Your task to perform on an android device: Check the news Image 0: 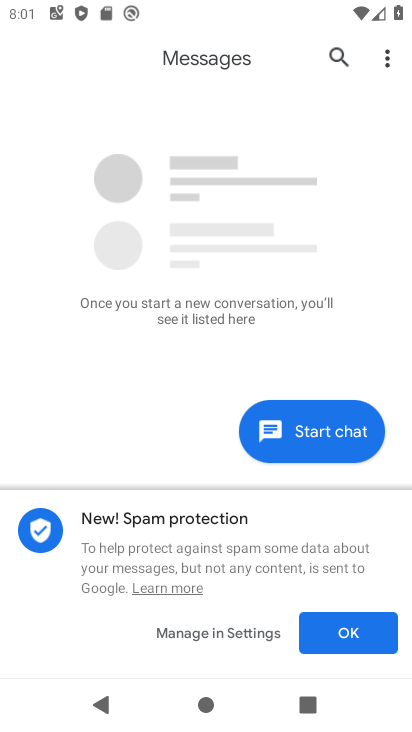
Step 0: press home button
Your task to perform on an android device: Check the news Image 1: 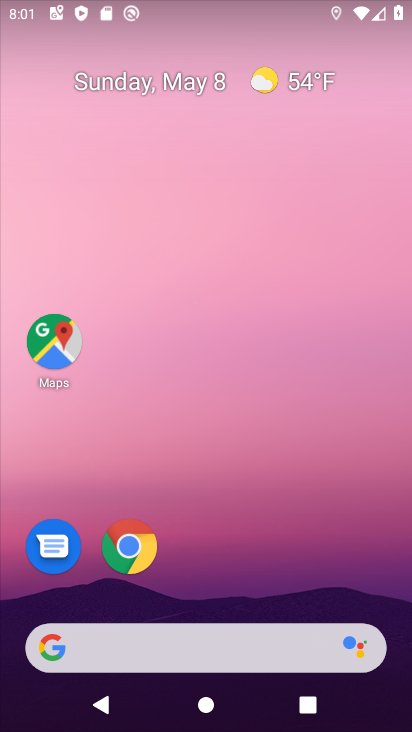
Step 1: task complete